Your task to perform on an android device: change the clock display to show seconds Image 0: 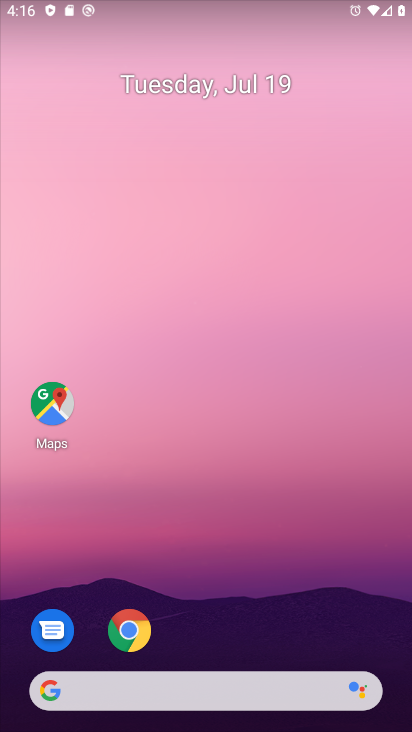
Step 0: drag from (186, 639) to (186, 23)
Your task to perform on an android device: change the clock display to show seconds Image 1: 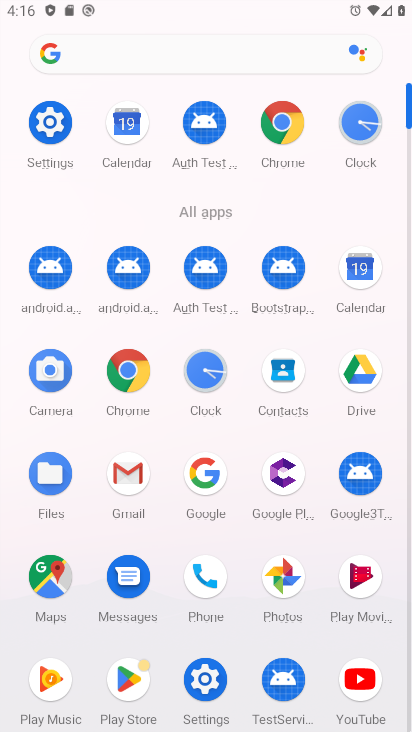
Step 1: click (196, 369)
Your task to perform on an android device: change the clock display to show seconds Image 2: 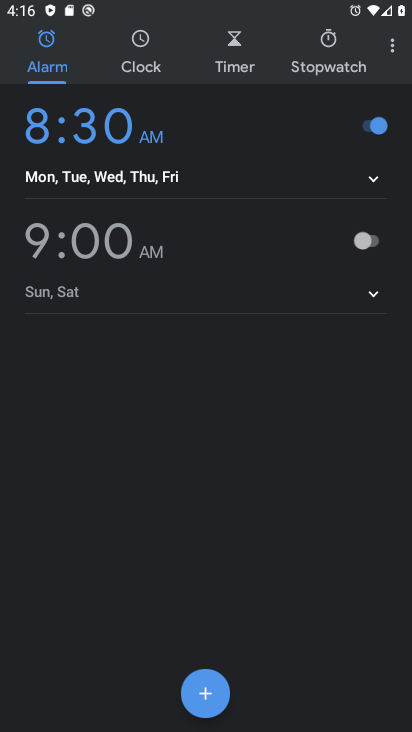
Step 2: click (394, 44)
Your task to perform on an android device: change the clock display to show seconds Image 3: 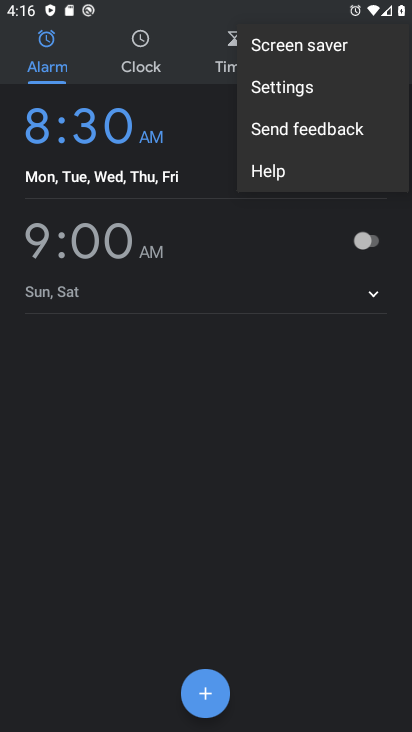
Step 3: click (263, 98)
Your task to perform on an android device: change the clock display to show seconds Image 4: 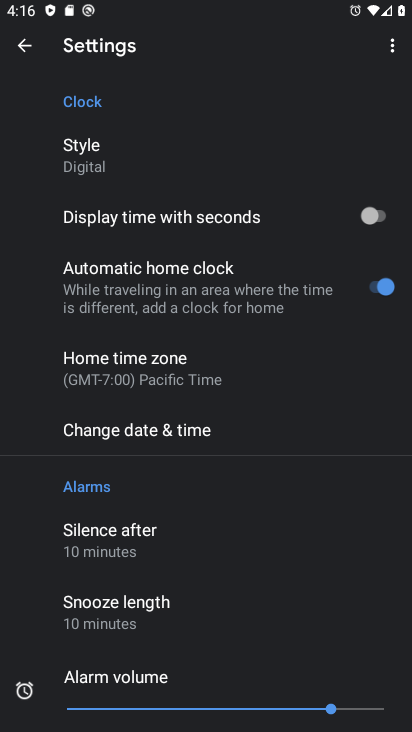
Step 4: click (387, 221)
Your task to perform on an android device: change the clock display to show seconds Image 5: 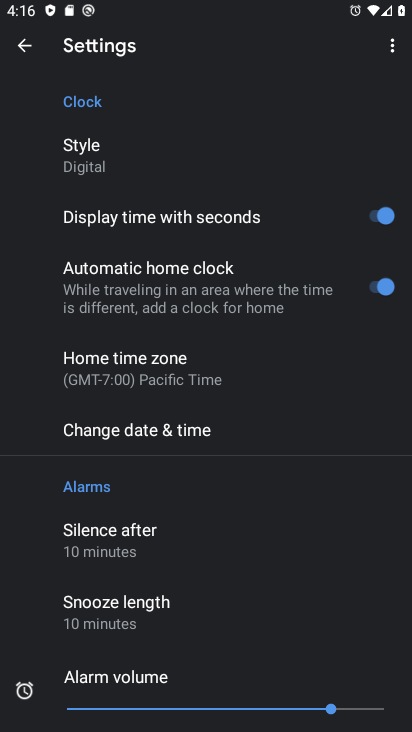
Step 5: task complete